Your task to perform on an android device: turn on priority inbox in the gmail app Image 0: 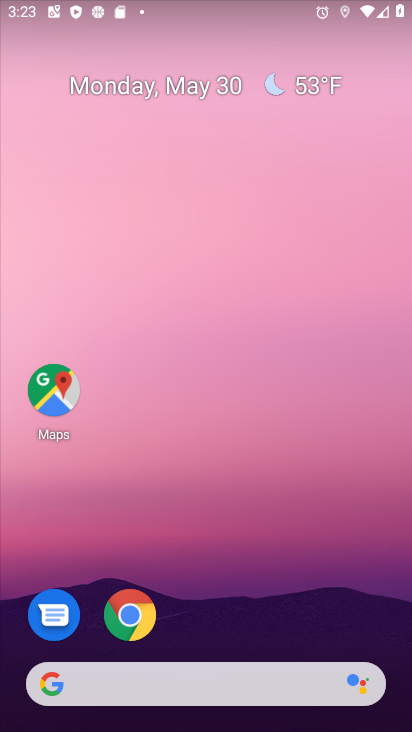
Step 0: drag from (328, 595) to (347, 200)
Your task to perform on an android device: turn on priority inbox in the gmail app Image 1: 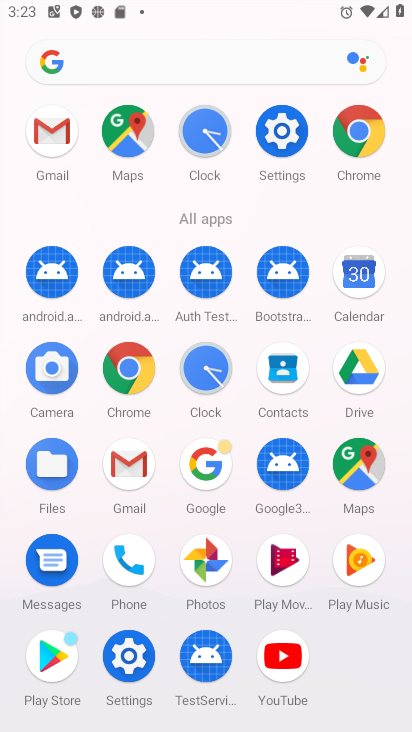
Step 1: click (120, 477)
Your task to perform on an android device: turn on priority inbox in the gmail app Image 2: 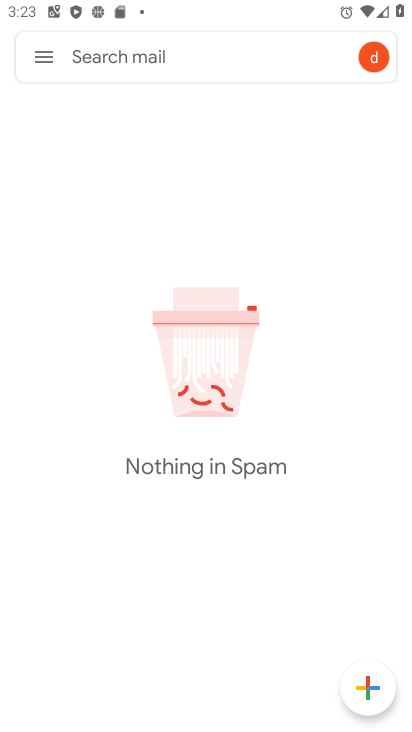
Step 2: click (38, 61)
Your task to perform on an android device: turn on priority inbox in the gmail app Image 3: 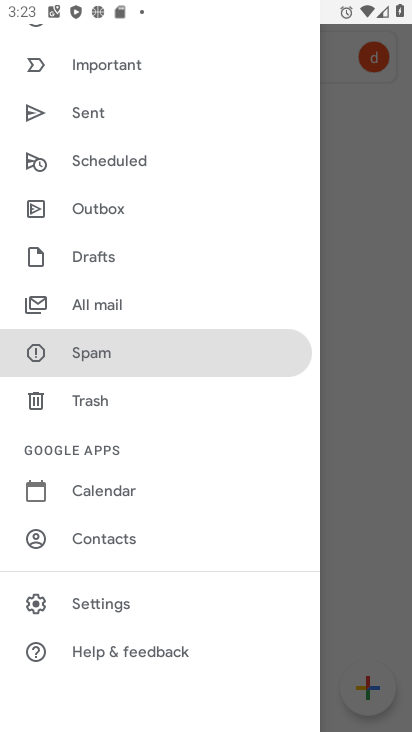
Step 3: click (136, 596)
Your task to perform on an android device: turn on priority inbox in the gmail app Image 4: 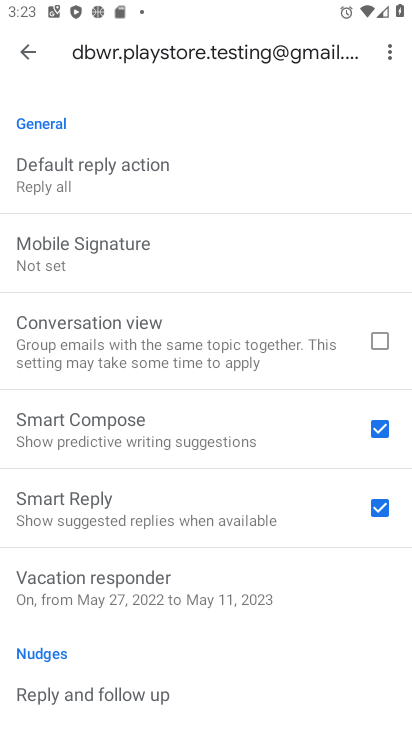
Step 4: drag from (169, 203) to (171, 725)
Your task to perform on an android device: turn on priority inbox in the gmail app Image 5: 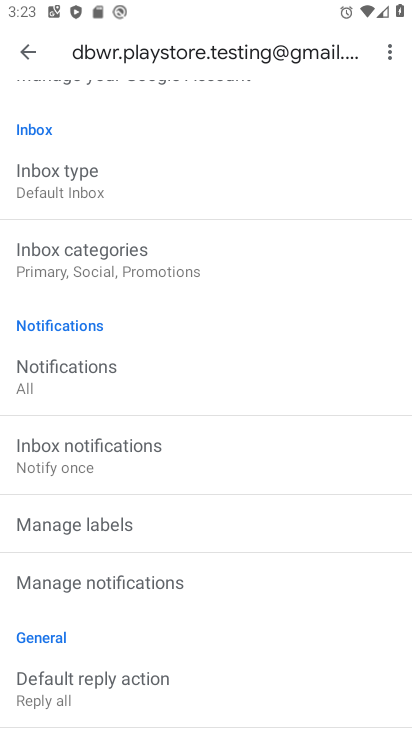
Step 5: click (85, 189)
Your task to perform on an android device: turn on priority inbox in the gmail app Image 6: 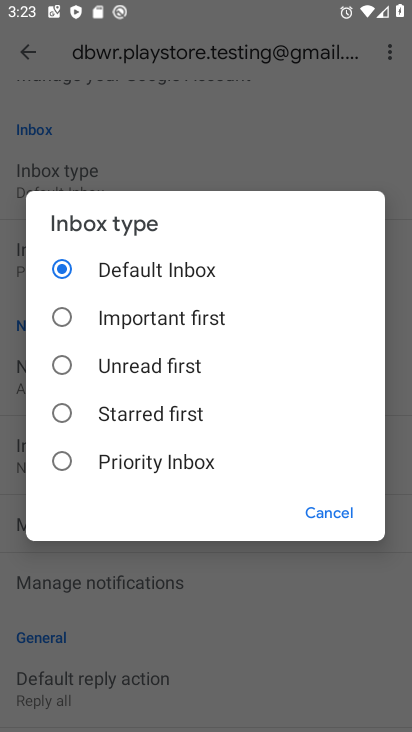
Step 6: click (155, 459)
Your task to perform on an android device: turn on priority inbox in the gmail app Image 7: 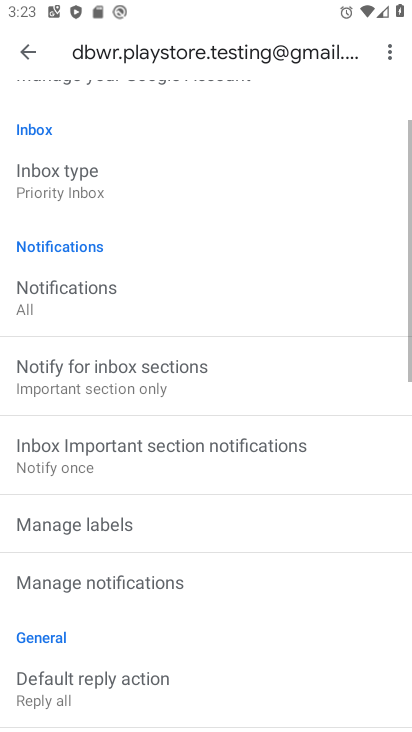
Step 7: task complete